Your task to perform on an android device: What is the recent news? Image 0: 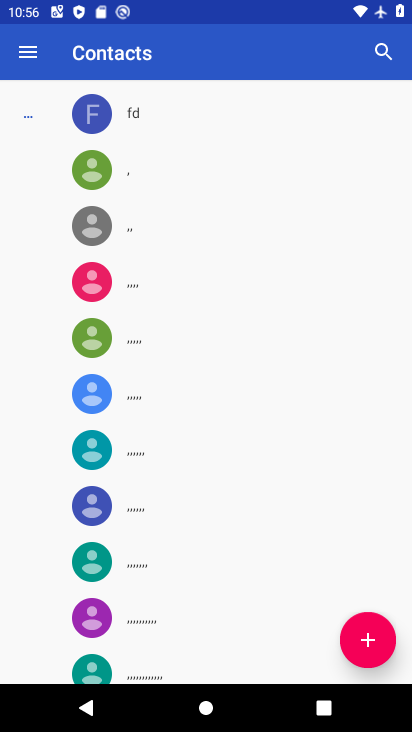
Step 0: press home button
Your task to perform on an android device: What is the recent news? Image 1: 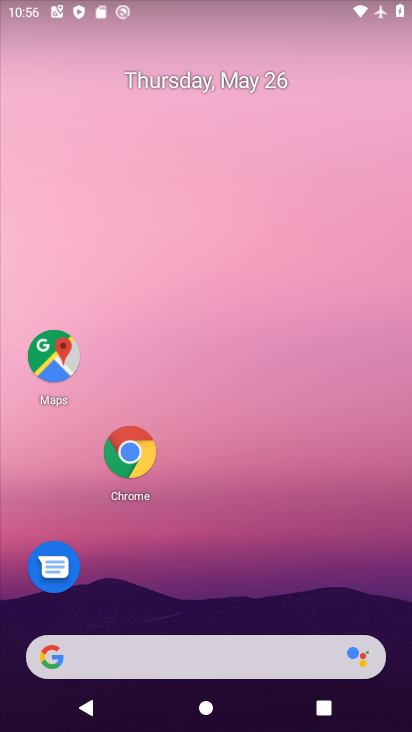
Step 1: click (48, 663)
Your task to perform on an android device: What is the recent news? Image 2: 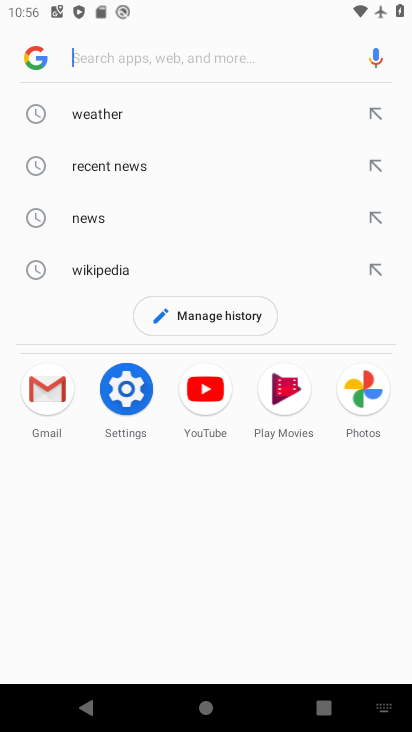
Step 2: click (128, 162)
Your task to perform on an android device: What is the recent news? Image 3: 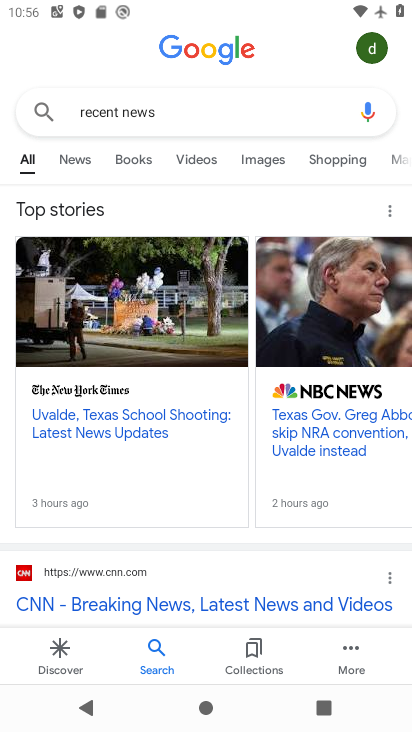
Step 3: click (77, 165)
Your task to perform on an android device: What is the recent news? Image 4: 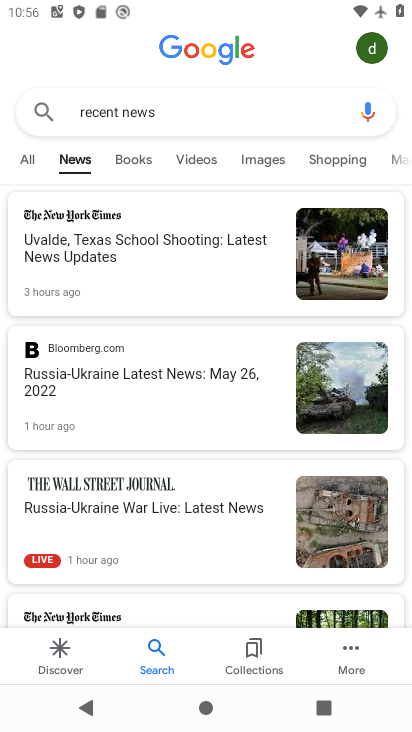
Step 4: task complete